Your task to perform on an android device: manage bookmarks in the chrome app Image 0: 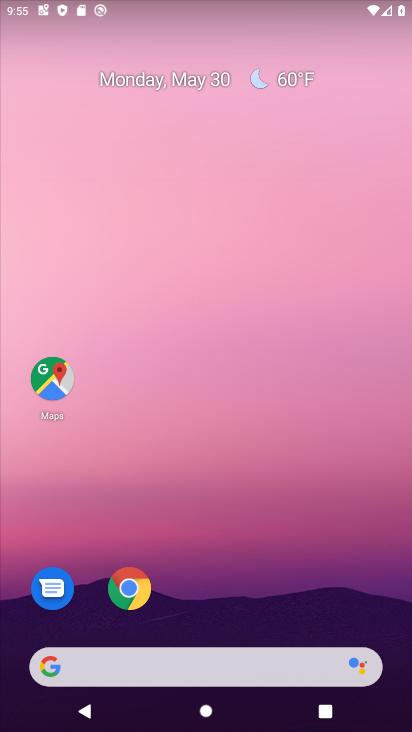
Step 0: click (124, 577)
Your task to perform on an android device: manage bookmarks in the chrome app Image 1: 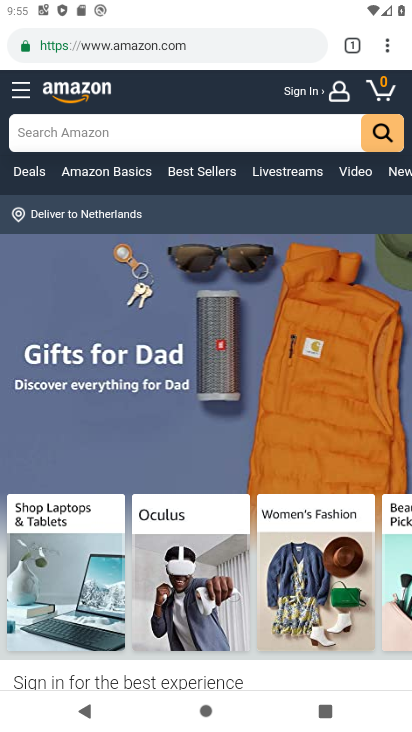
Step 1: click (389, 51)
Your task to perform on an android device: manage bookmarks in the chrome app Image 2: 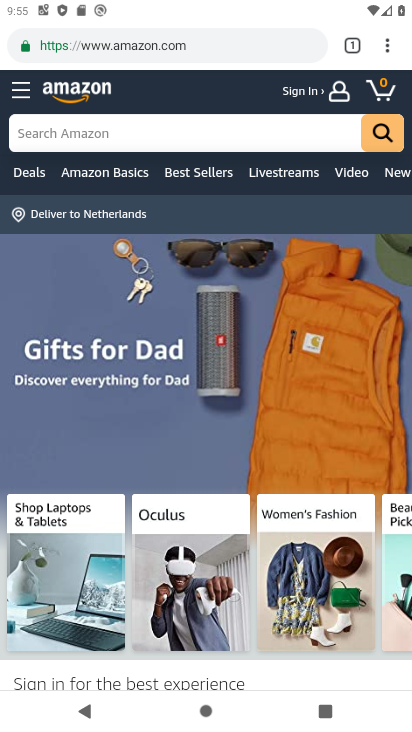
Step 2: click (377, 42)
Your task to perform on an android device: manage bookmarks in the chrome app Image 3: 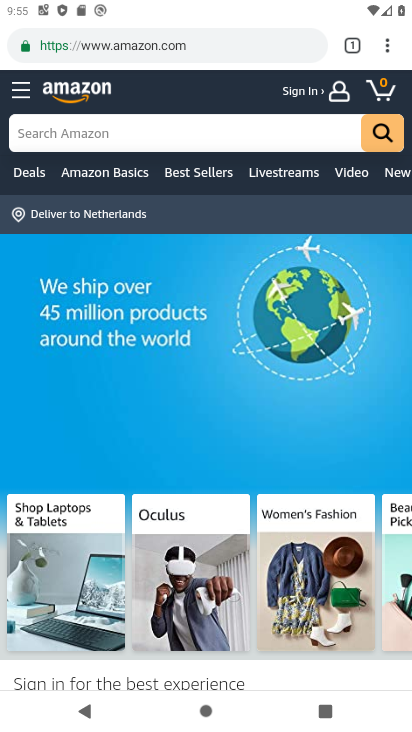
Step 3: click (391, 46)
Your task to perform on an android device: manage bookmarks in the chrome app Image 4: 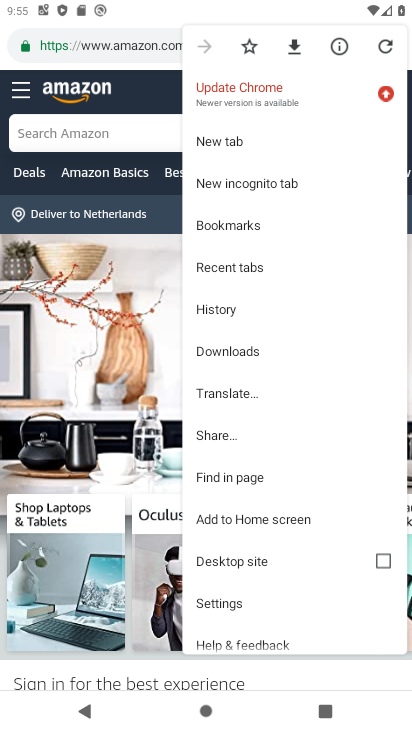
Step 4: click (236, 238)
Your task to perform on an android device: manage bookmarks in the chrome app Image 5: 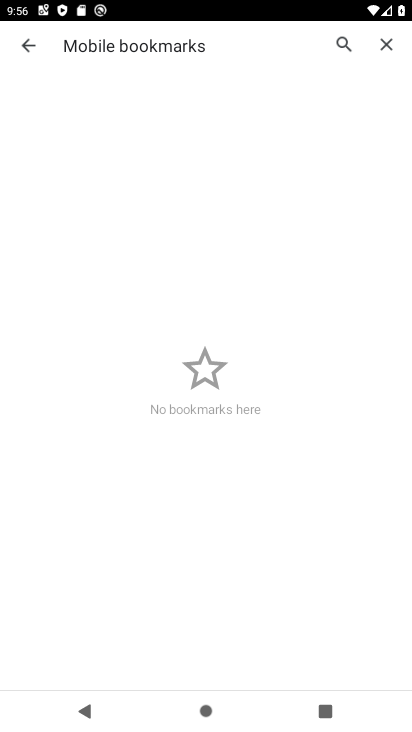
Step 5: task complete